Your task to perform on an android device: change your default location settings in chrome Image 0: 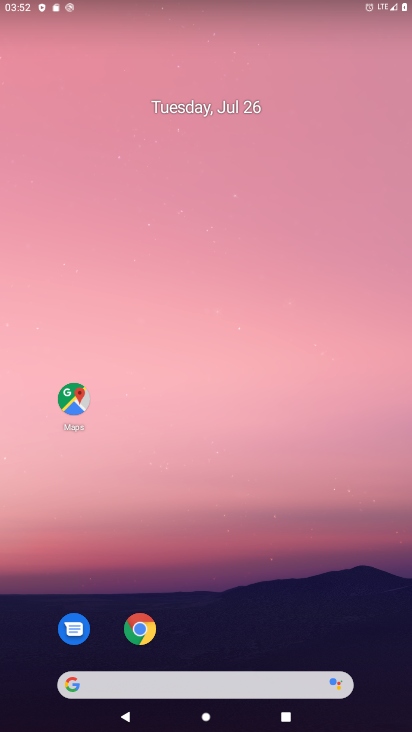
Step 0: drag from (270, 619) to (311, 54)
Your task to perform on an android device: change your default location settings in chrome Image 1: 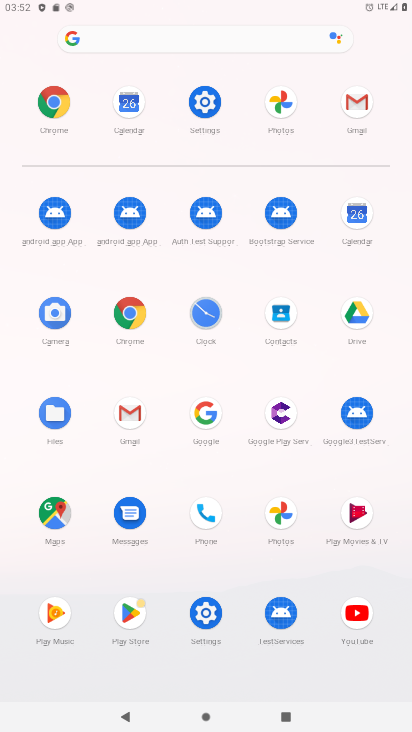
Step 1: click (126, 310)
Your task to perform on an android device: change your default location settings in chrome Image 2: 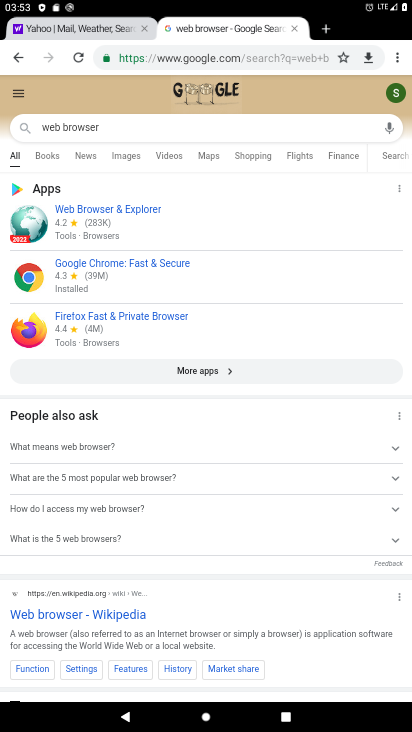
Step 2: drag from (399, 56) to (298, 351)
Your task to perform on an android device: change your default location settings in chrome Image 3: 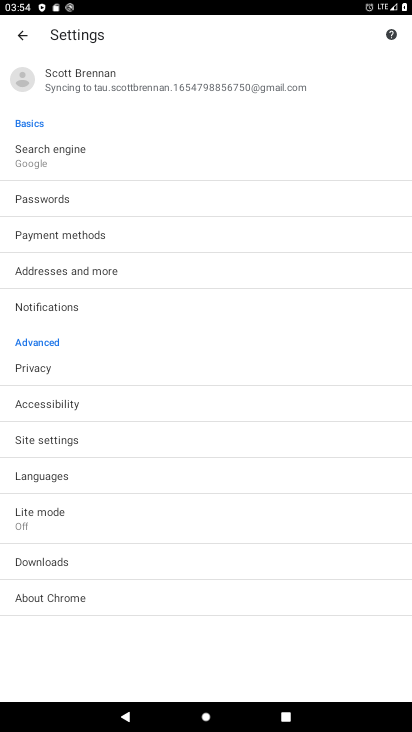
Step 3: click (61, 435)
Your task to perform on an android device: change your default location settings in chrome Image 4: 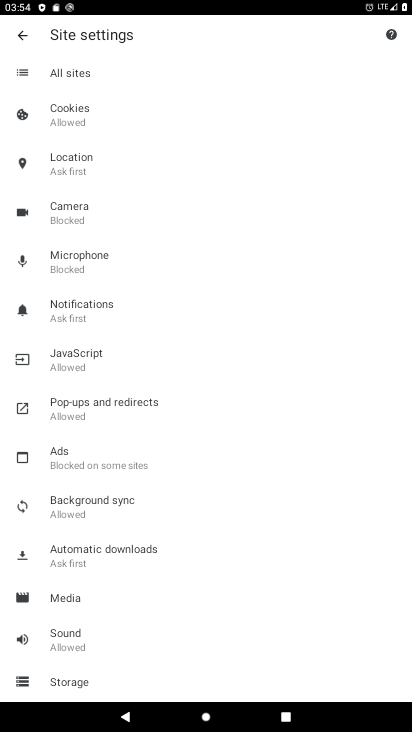
Step 4: click (76, 157)
Your task to perform on an android device: change your default location settings in chrome Image 5: 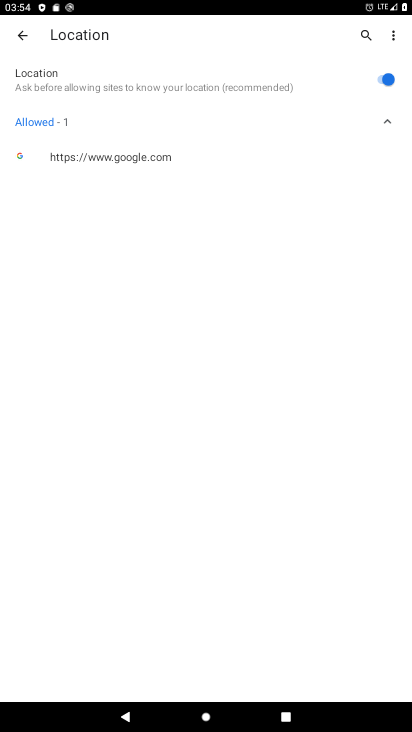
Step 5: task complete